Your task to perform on an android device: allow cookies in the chrome app Image 0: 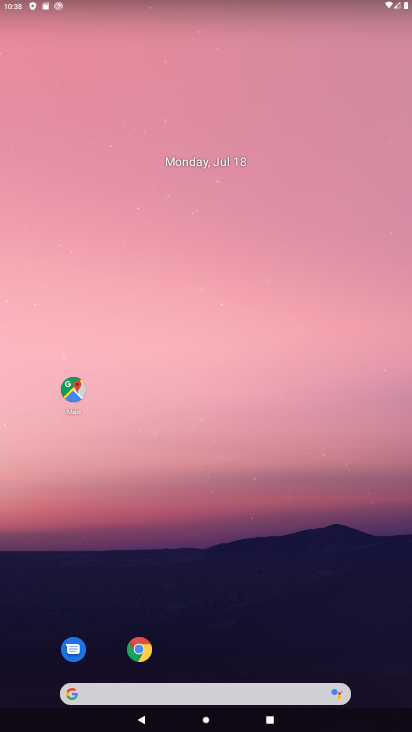
Step 0: click (138, 652)
Your task to perform on an android device: allow cookies in the chrome app Image 1: 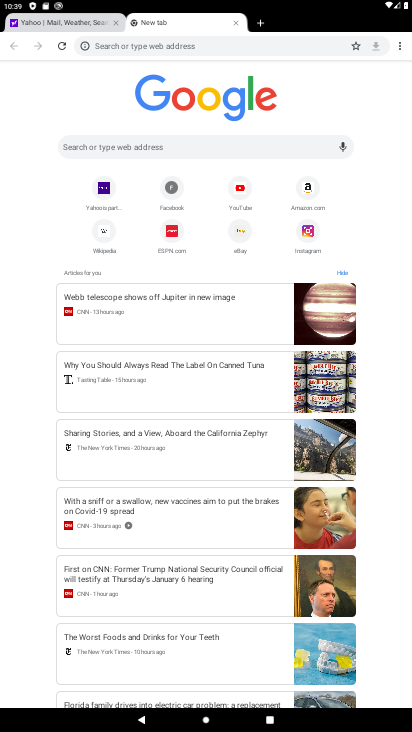
Step 1: click (398, 43)
Your task to perform on an android device: allow cookies in the chrome app Image 2: 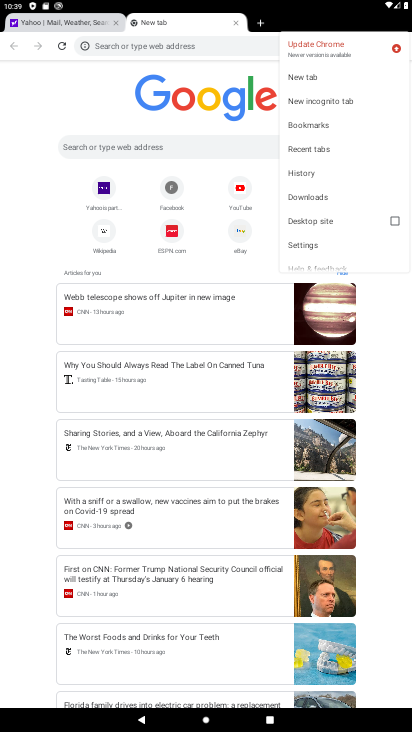
Step 2: click (311, 244)
Your task to perform on an android device: allow cookies in the chrome app Image 3: 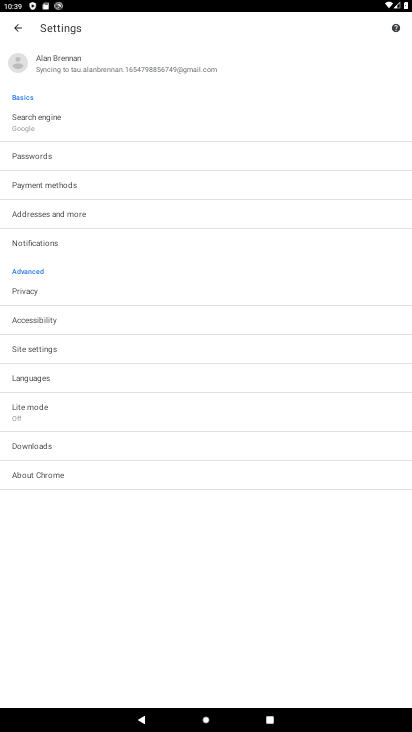
Step 3: click (37, 348)
Your task to perform on an android device: allow cookies in the chrome app Image 4: 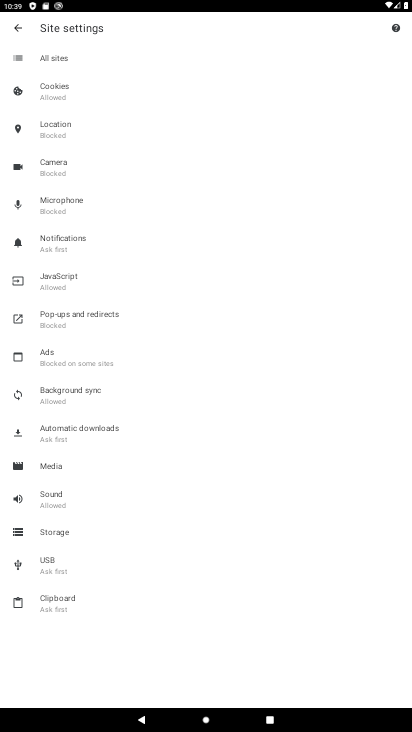
Step 4: click (52, 79)
Your task to perform on an android device: allow cookies in the chrome app Image 5: 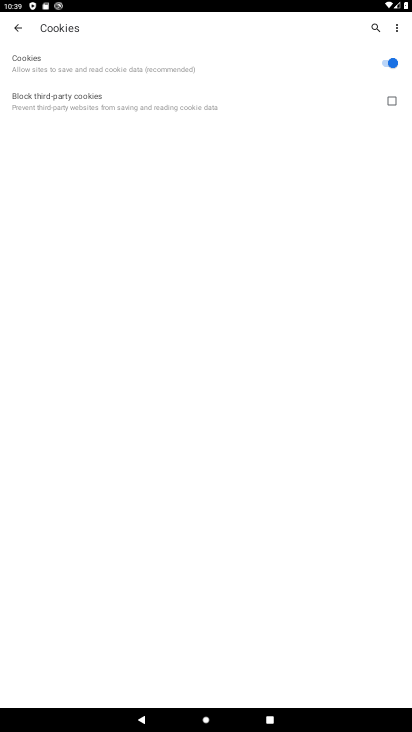
Step 5: task complete